Your task to perform on an android device: open chrome and create a bookmark for the current page Image 0: 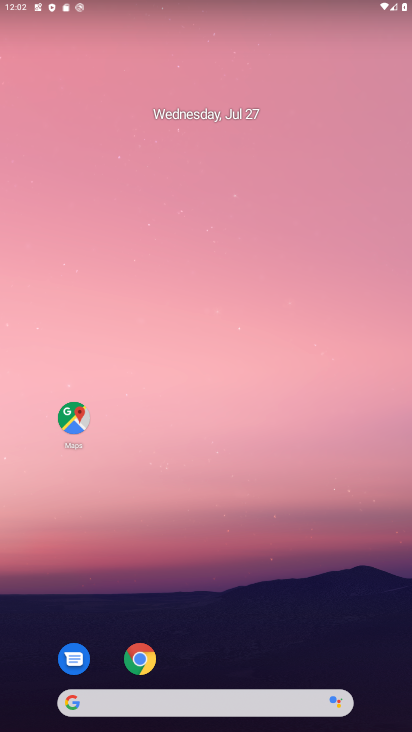
Step 0: press home button
Your task to perform on an android device: open chrome and create a bookmark for the current page Image 1: 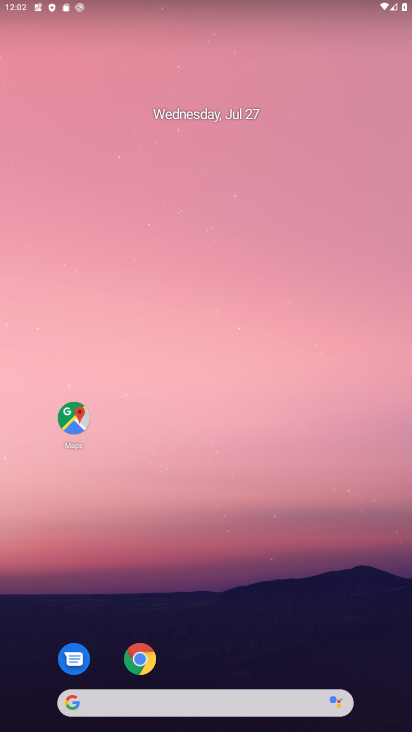
Step 1: click (135, 656)
Your task to perform on an android device: open chrome and create a bookmark for the current page Image 2: 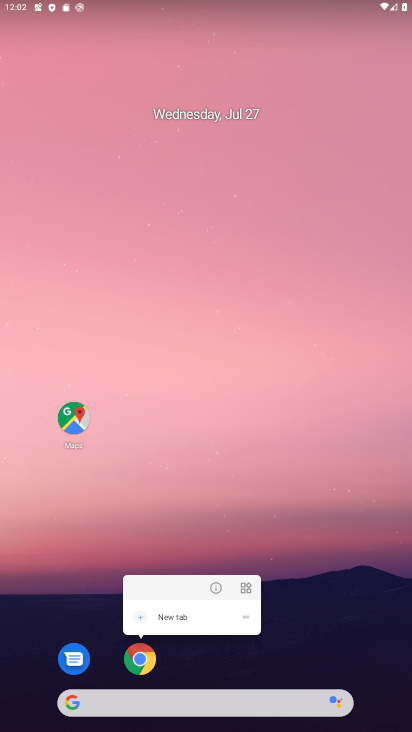
Step 2: click (135, 656)
Your task to perform on an android device: open chrome and create a bookmark for the current page Image 3: 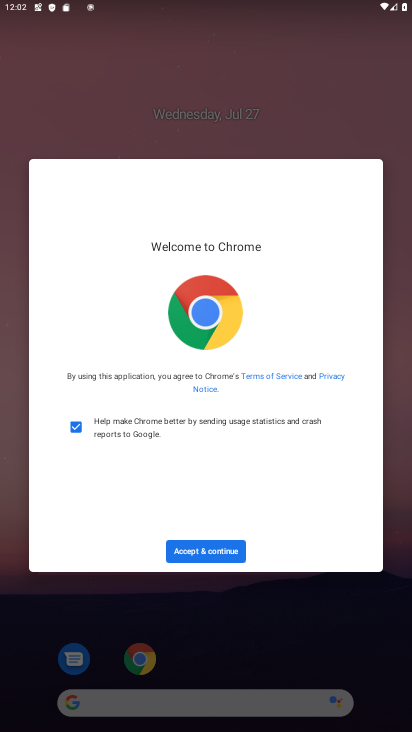
Step 3: click (204, 548)
Your task to perform on an android device: open chrome and create a bookmark for the current page Image 4: 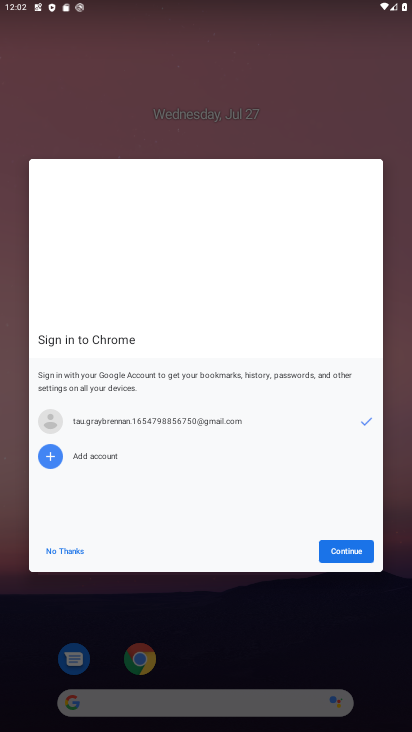
Step 4: click (340, 552)
Your task to perform on an android device: open chrome and create a bookmark for the current page Image 5: 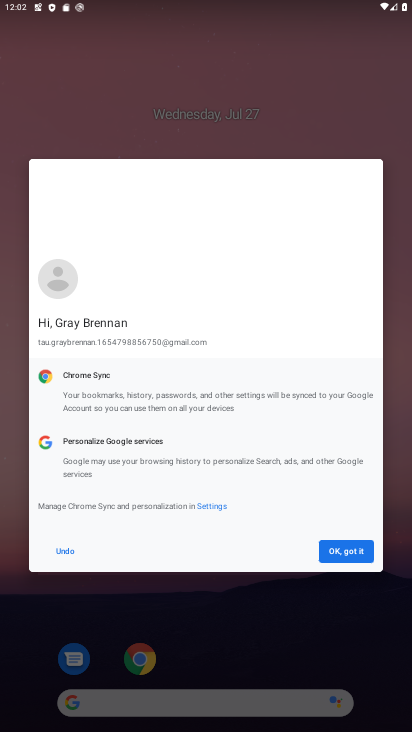
Step 5: click (344, 548)
Your task to perform on an android device: open chrome and create a bookmark for the current page Image 6: 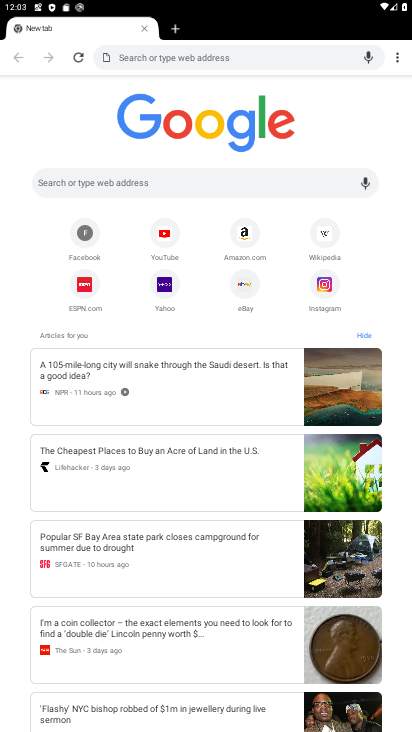
Step 6: click (396, 58)
Your task to perform on an android device: open chrome and create a bookmark for the current page Image 7: 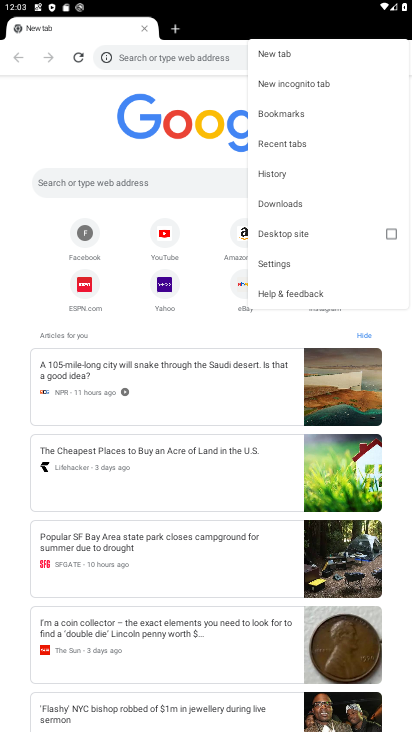
Step 7: click (84, 136)
Your task to perform on an android device: open chrome and create a bookmark for the current page Image 8: 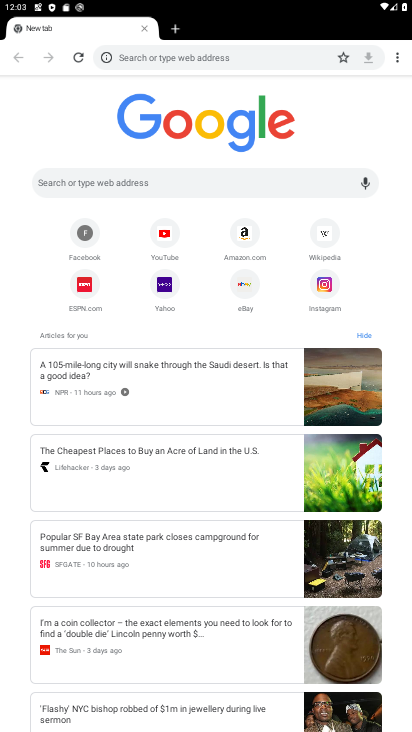
Step 8: click (341, 55)
Your task to perform on an android device: open chrome and create a bookmark for the current page Image 9: 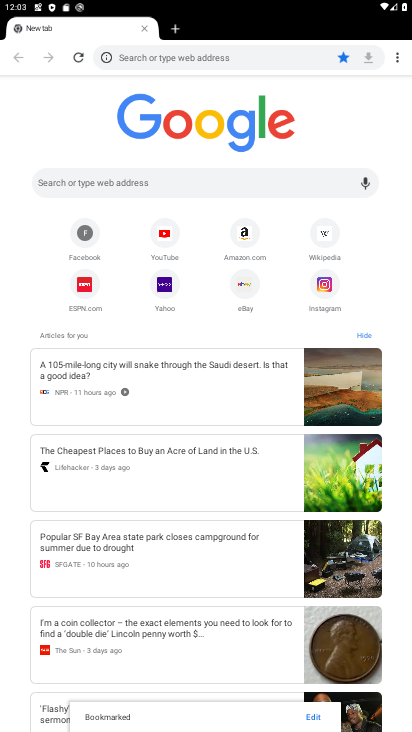
Step 9: task complete